Your task to perform on an android device: turn on the 24-hour format for clock Image 0: 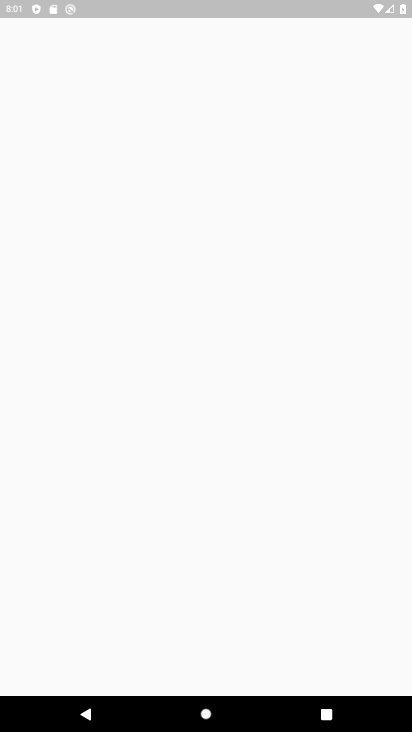
Step 0: press home button
Your task to perform on an android device: turn on the 24-hour format for clock Image 1: 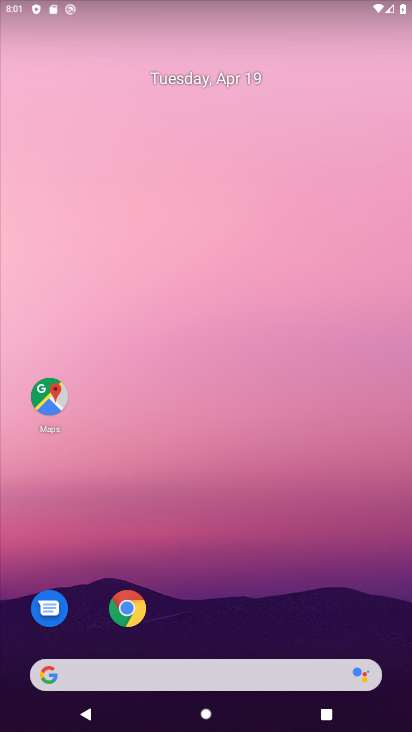
Step 1: drag from (235, 599) to (306, 28)
Your task to perform on an android device: turn on the 24-hour format for clock Image 2: 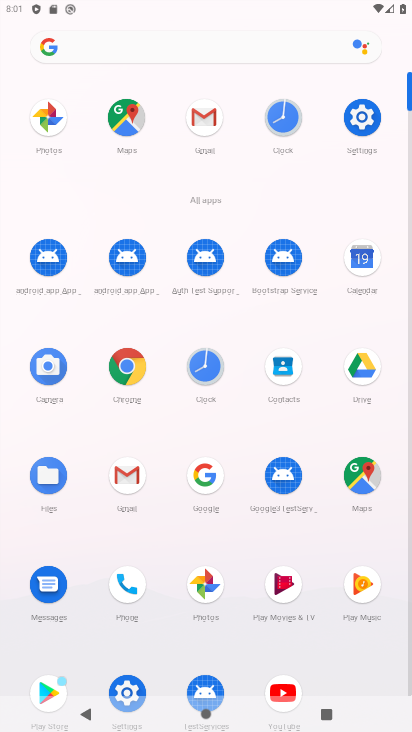
Step 2: click (205, 366)
Your task to perform on an android device: turn on the 24-hour format for clock Image 3: 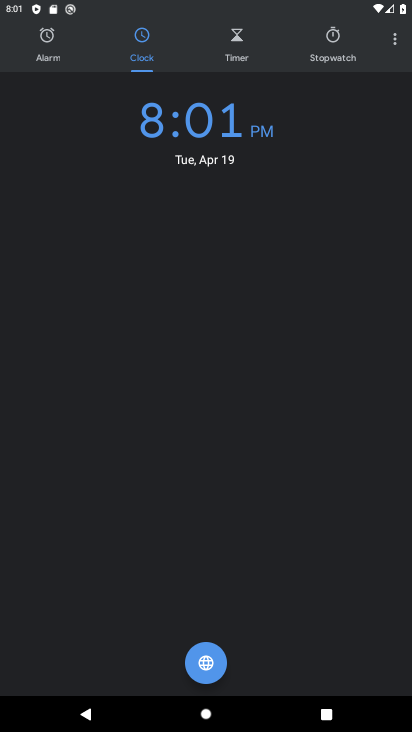
Step 3: click (392, 39)
Your task to perform on an android device: turn on the 24-hour format for clock Image 4: 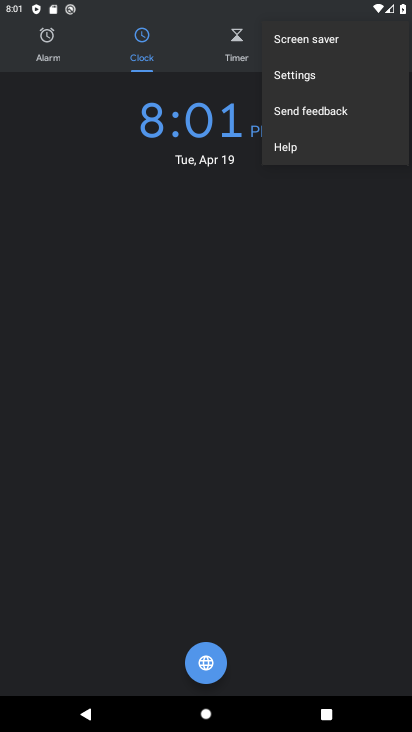
Step 4: click (319, 74)
Your task to perform on an android device: turn on the 24-hour format for clock Image 5: 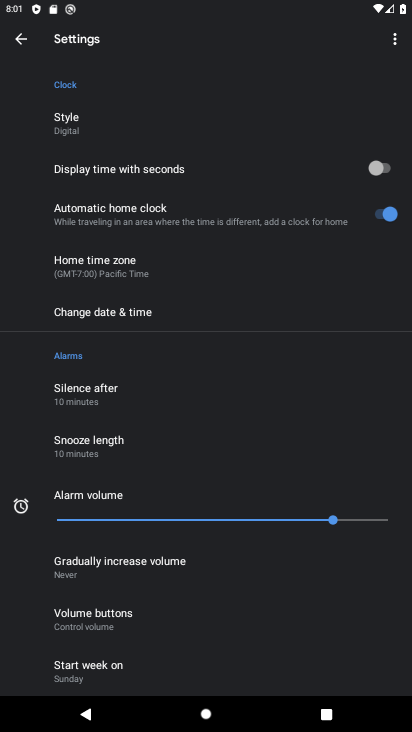
Step 5: click (152, 312)
Your task to perform on an android device: turn on the 24-hour format for clock Image 6: 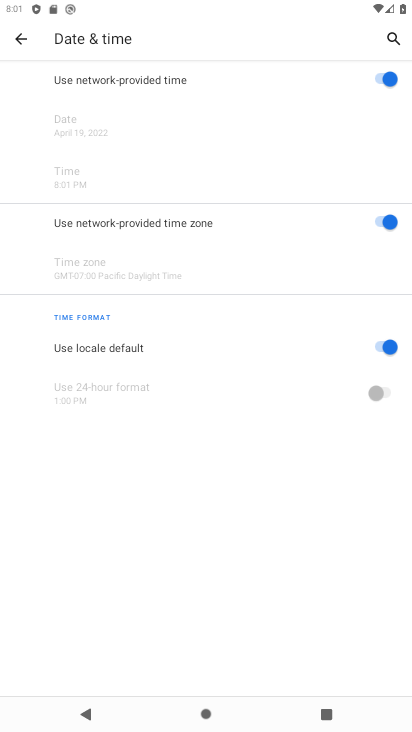
Step 6: click (387, 348)
Your task to perform on an android device: turn on the 24-hour format for clock Image 7: 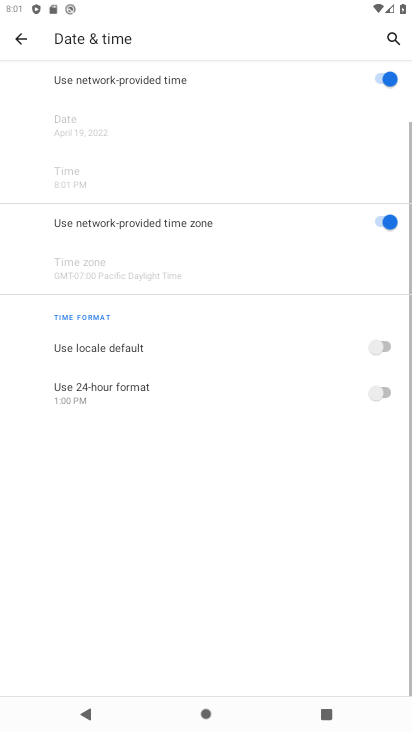
Step 7: click (383, 396)
Your task to perform on an android device: turn on the 24-hour format for clock Image 8: 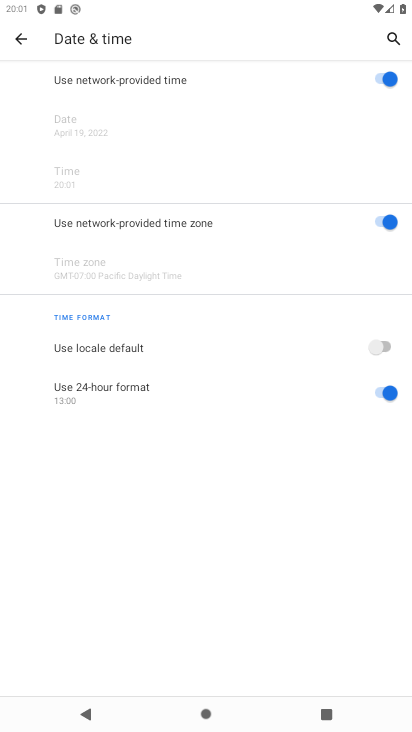
Step 8: task complete